Your task to perform on an android device: Show me the alarms in the clock app Image 0: 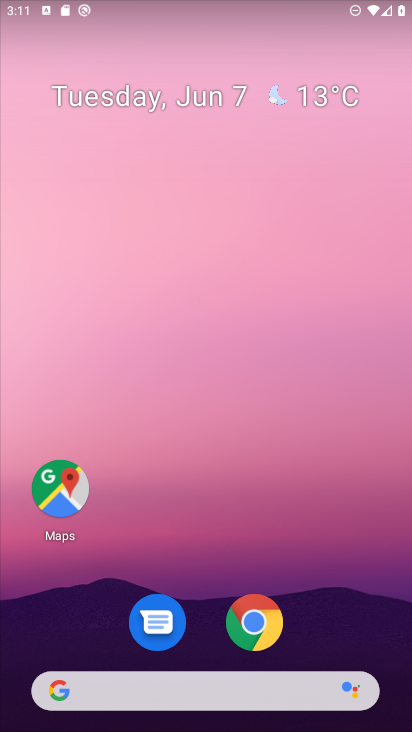
Step 0: drag from (340, 618) to (262, 79)
Your task to perform on an android device: Show me the alarms in the clock app Image 1: 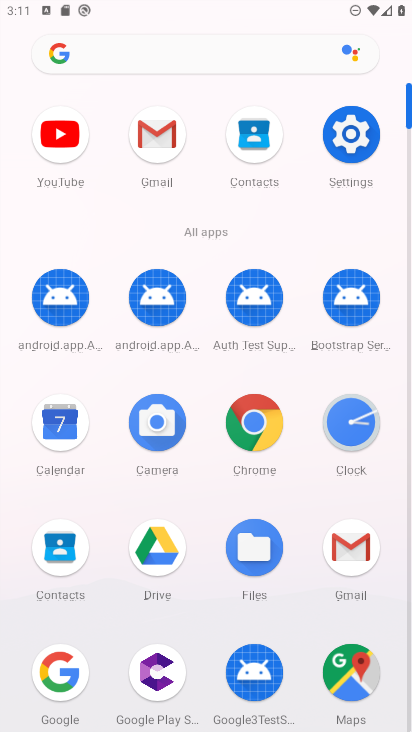
Step 1: click (352, 416)
Your task to perform on an android device: Show me the alarms in the clock app Image 2: 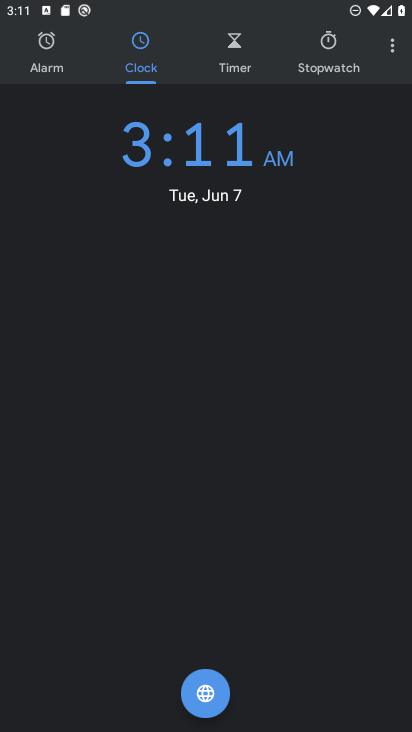
Step 2: click (46, 42)
Your task to perform on an android device: Show me the alarms in the clock app Image 3: 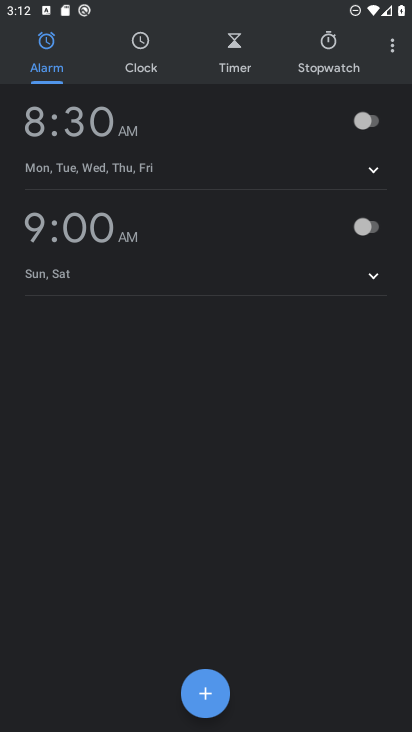
Step 3: click (371, 229)
Your task to perform on an android device: Show me the alarms in the clock app Image 4: 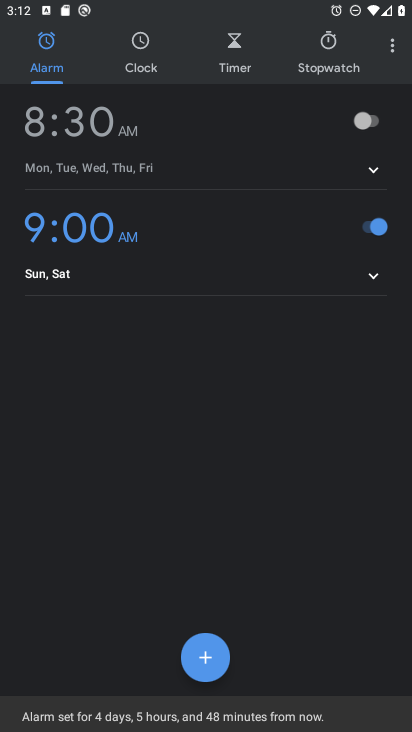
Step 4: task complete